Your task to perform on an android device: Open calendar and show me the second week of next month Image 0: 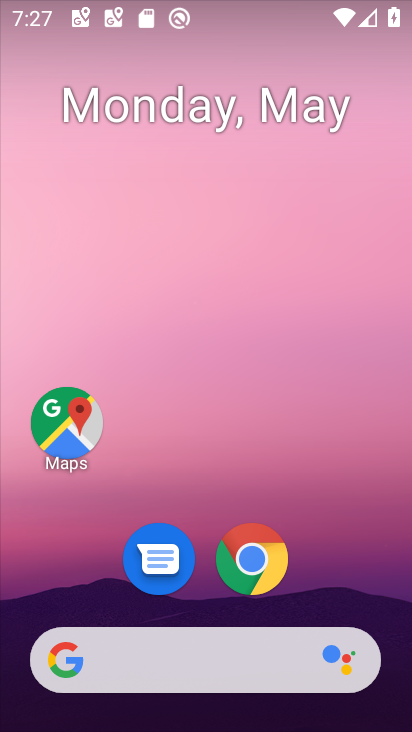
Step 0: drag from (398, 651) to (303, 80)
Your task to perform on an android device: Open calendar and show me the second week of next month Image 1: 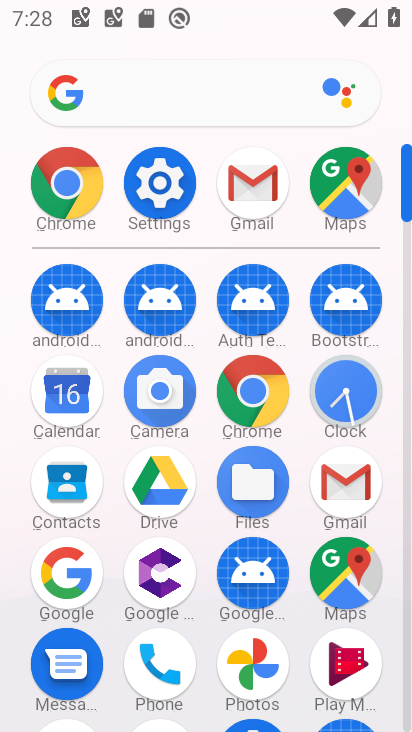
Step 1: click (61, 388)
Your task to perform on an android device: Open calendar and show me the second week of next month Image 2: 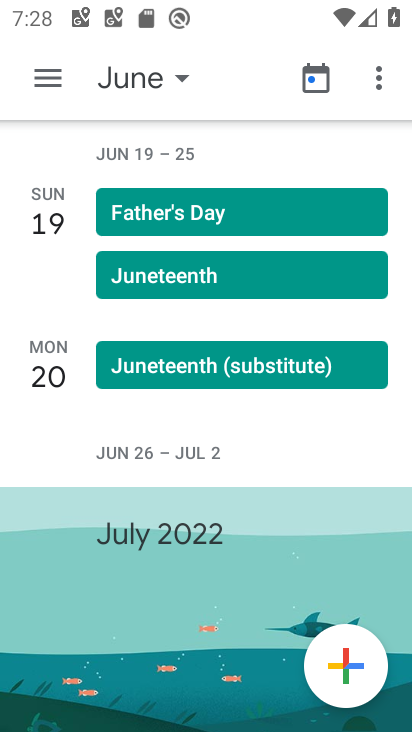
Step 2: click (151, 75)
Your task to perform on an android device: Open calendar and show me the second week of next month Image 3: 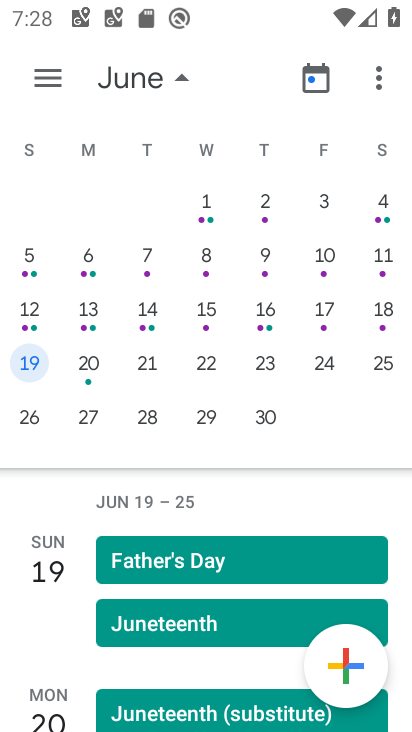
Step 3: drag from (391, 274) to (27, 260)
Your task to perform on an android device: Open calendar and show me the second week of next month Image 4: 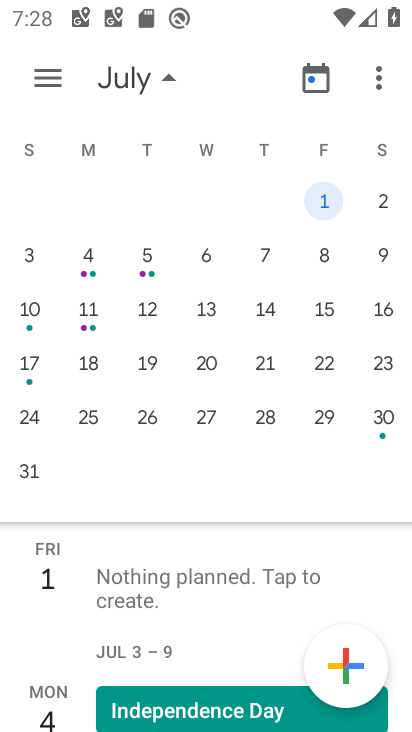
Step 4: click (86, 300)
Your task to perform on an android device: Open calendar and show me the second week of next month Image 5: 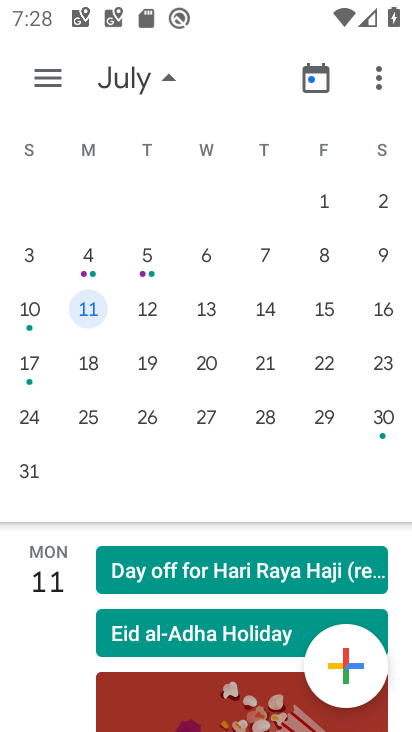
Step 5: task complete